Your task to perform on an android device: find which apps use the phone's location Image 0: 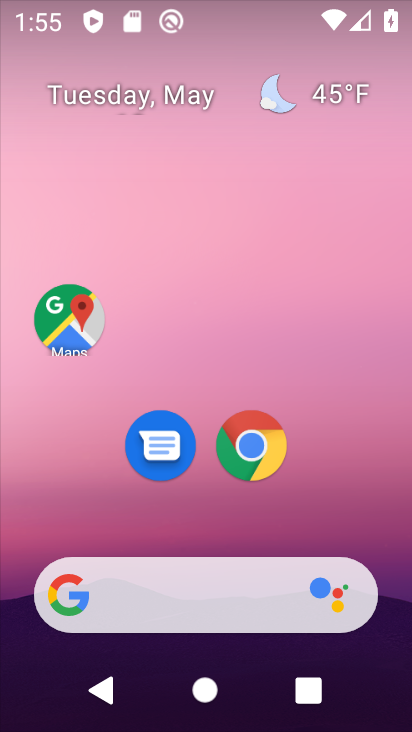
Step 0: drag from (214, 516) to (229, 168)
Your task to perform on an android device: find which apps use the phone's location Image 1: 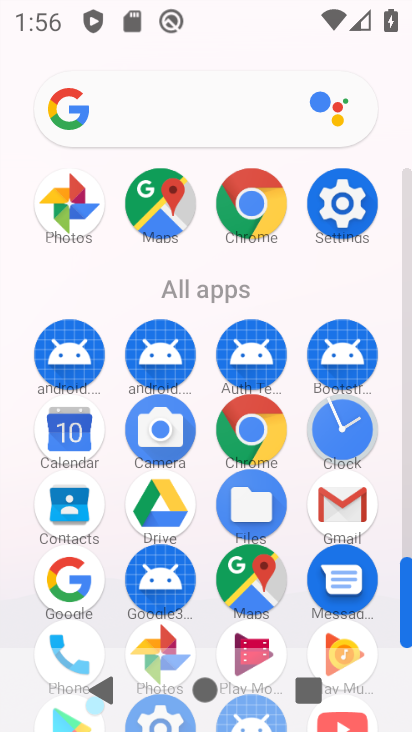
Step 1: click (346, 207)
Your task to perform on an android device: find which apps use the phone's location Image 2: 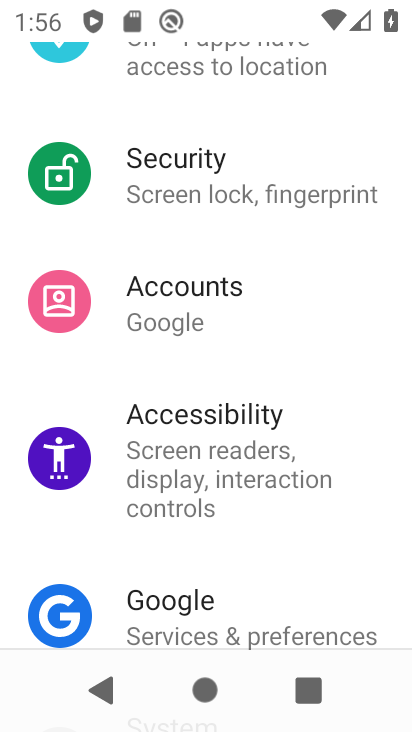
Step 2: drag from (246, 555) to (208, 676)
Your task to perform on an android device: find which apps use the phone's location Image 3: 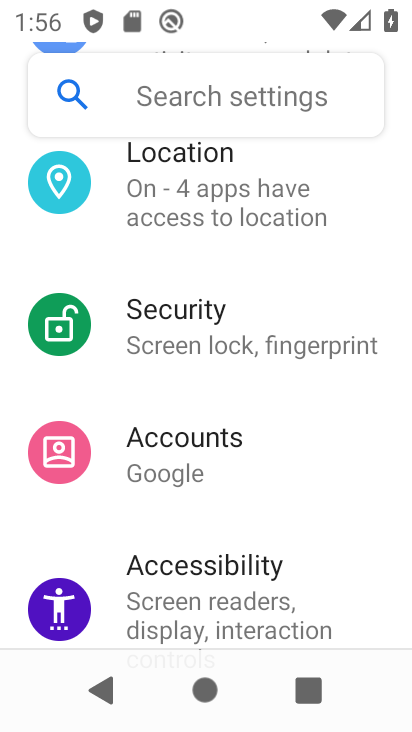
Step 3: click (168, 219)
Your task to perform on an android device: find which apps use the phone's location Image 4: 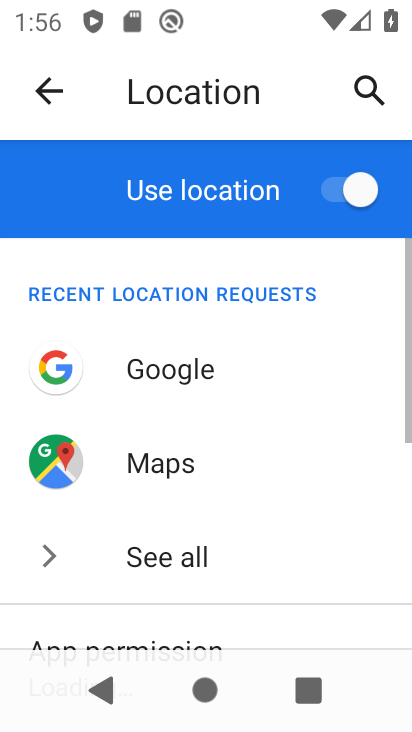
Step 4: click (98, 627)
Your task to perform on an android device: find which apps use the phone's location Image 5: 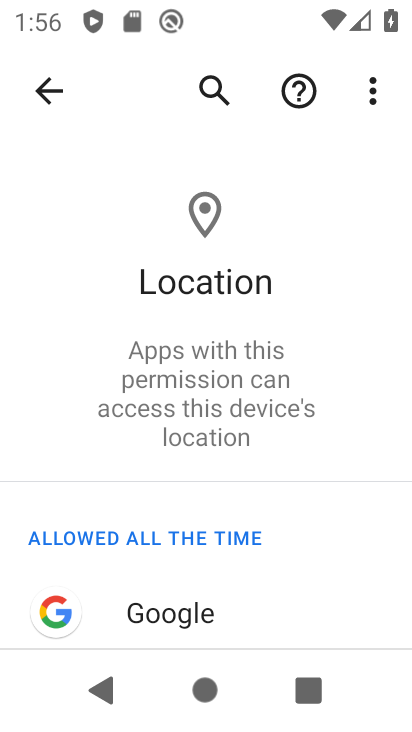
Step 5: task complete